Your task to perform on an android device: Show me the alarms in the clock app Image 0: 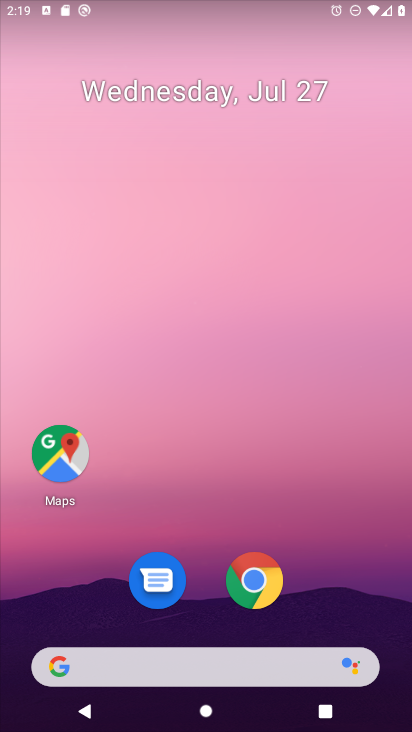
Step 0: drag from (245, 699) to (255, 191)
Your task to perform on an android device: Show me the alarms in the clock app Image 1: 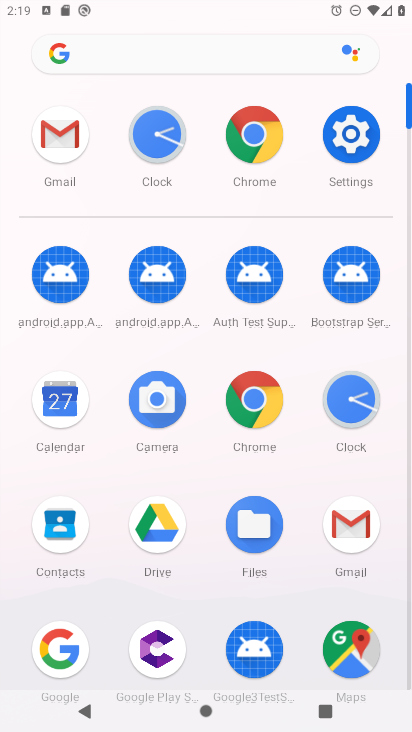
Step 1: click (358, 418)
Your task to perform on an android device: Show me the alarms in the clock app Image 2: 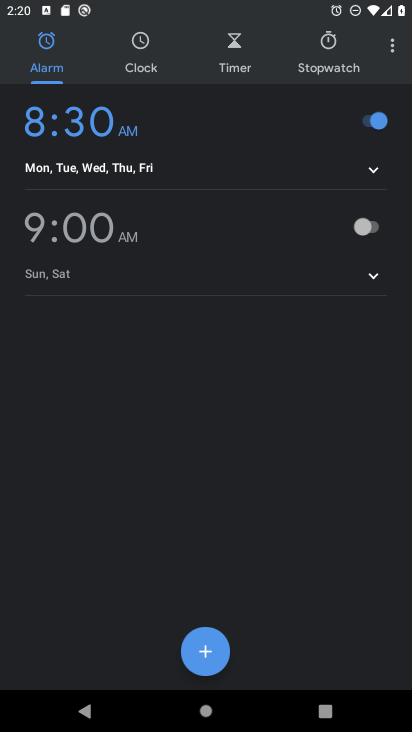
Step 2: click (165, 244)
Your task to perform on an android device: Show me the alarms in the clock app Image 3: 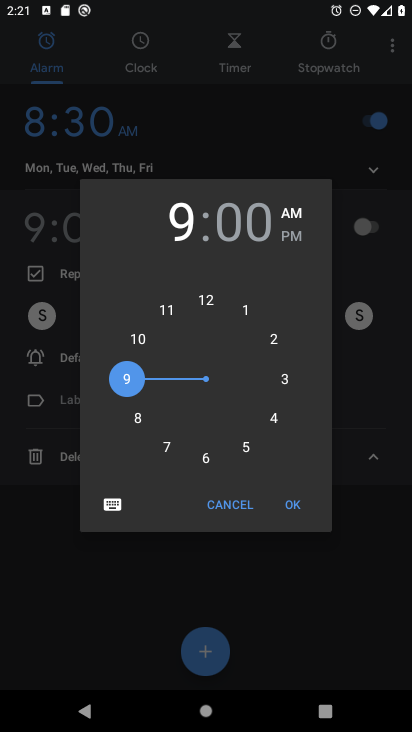
Step 3: task complete